Your task to perform on an android device: Open Google Maps and go to "Timeline" Image 0: 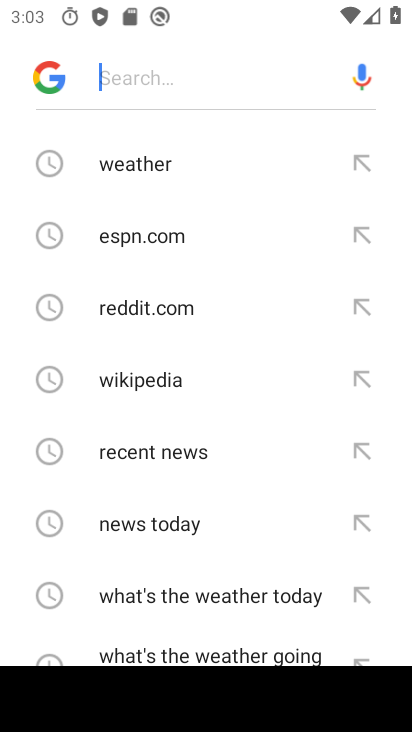
Step 0: press home button
Your task to perform on an android device: Open Google Maps and go to "Timeline" Image 1: 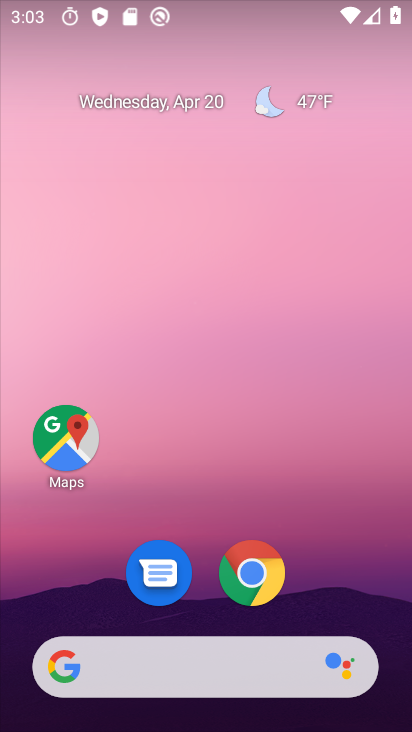
Step 1: drag from (222, 721) to (222, 31)
Your task to perform on an android device: Open Google Maps and go to "Timeline" Image 2: 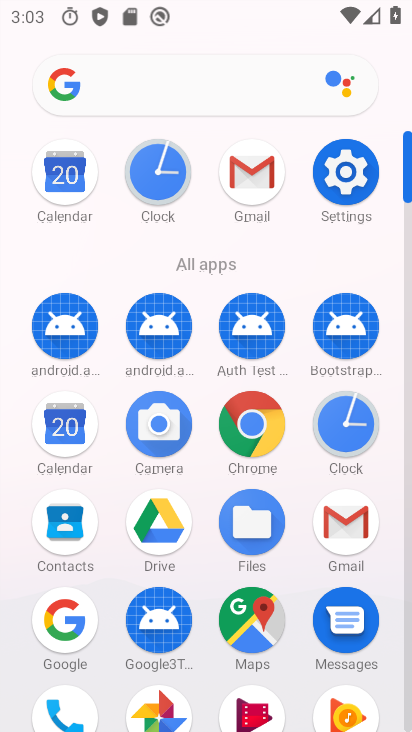
Step 2: click (250, 622)
Your task to perform on an android device: Open Google Maps and go to "Timeline" Image 3: 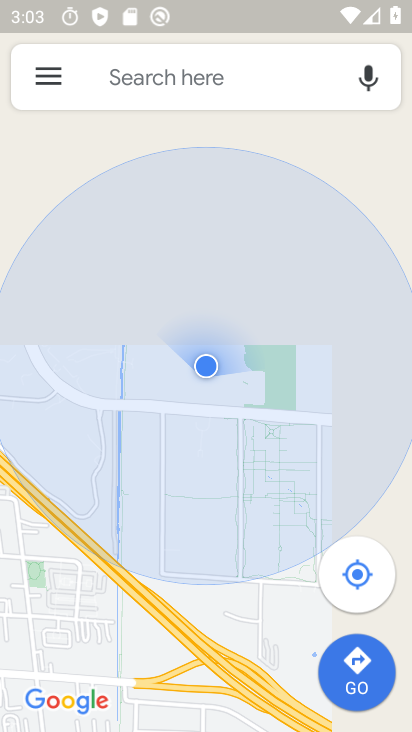
Step 3: click (49, 77)
Your task to perform on an android device: Open Google Maps and go to "Timeline" Image 4: 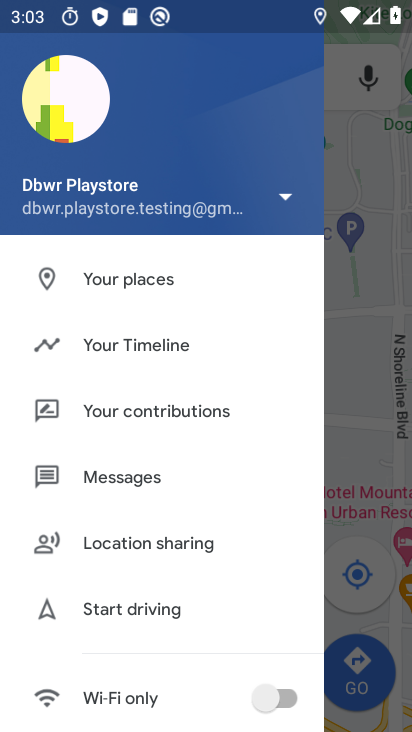
Step 4: click (137, 344)
Your task to perform on an android device: Open Google Maps and go to "Timeline" Image 5: 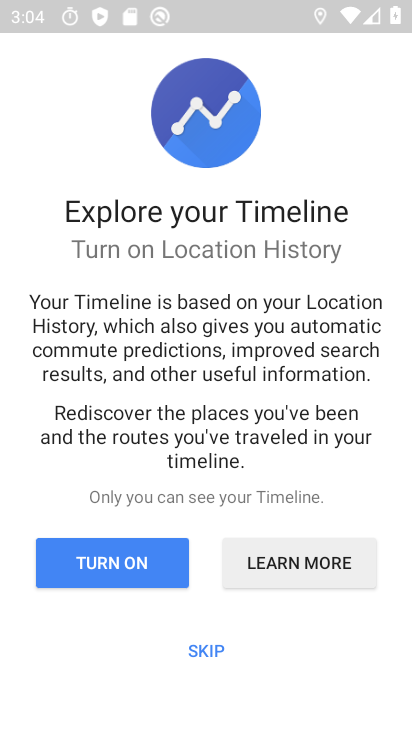
Step 5: click (202, 645)
Your task to perform on an android device: Open Google Maps and go to "Timeline" Image 6: 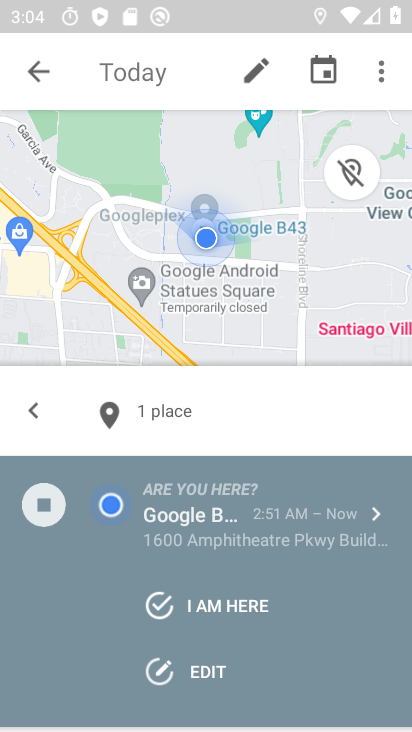
Step 6: task complete